Your task to perform on an android device: stop showing notifications on the lock screen Image 0: 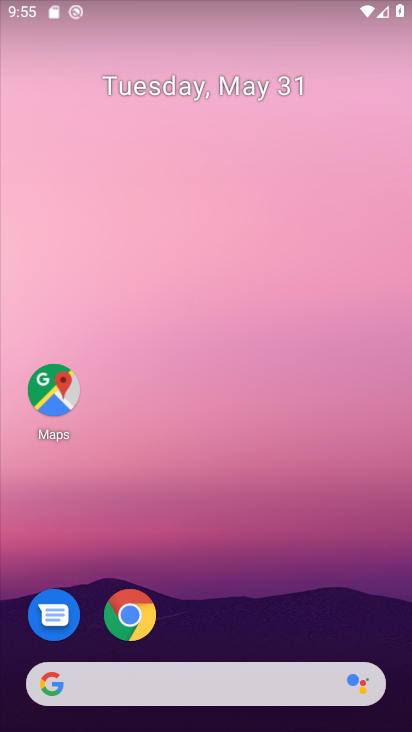
Step 0: drag from (265, 614) to (391, 34)
Your task to perform on an android device: stop showing notifications on the lock screen Image 1: 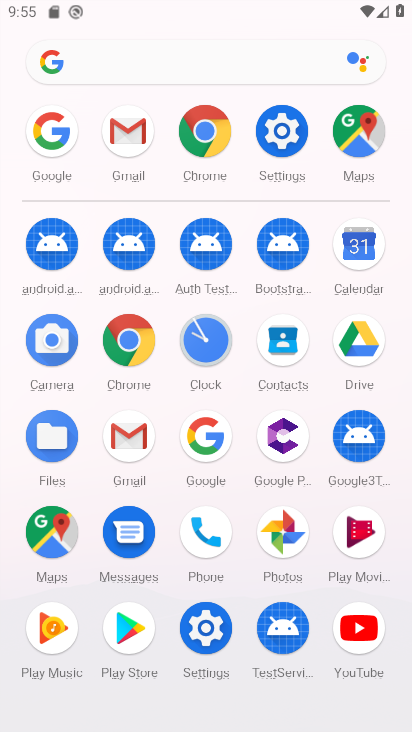
Step 1: click (273, 139)
Your task to perform on an android device: stop showing notifications on the lock screen Image 2: 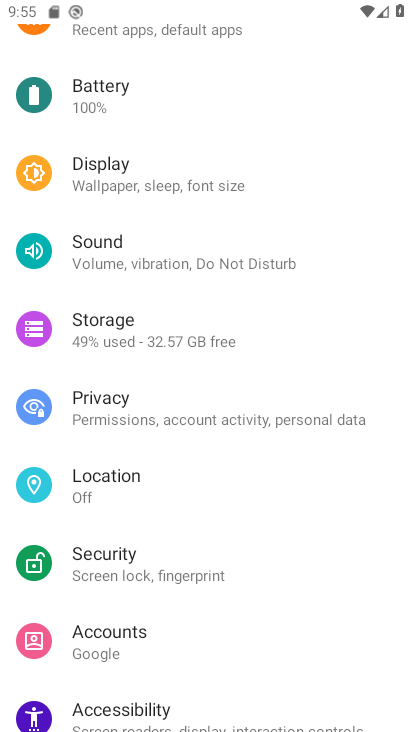
Step 2: drag from (171, 212) to (257, 614)
Your task to perform on an android device: stop showing notifications on the lock screen Image 3: 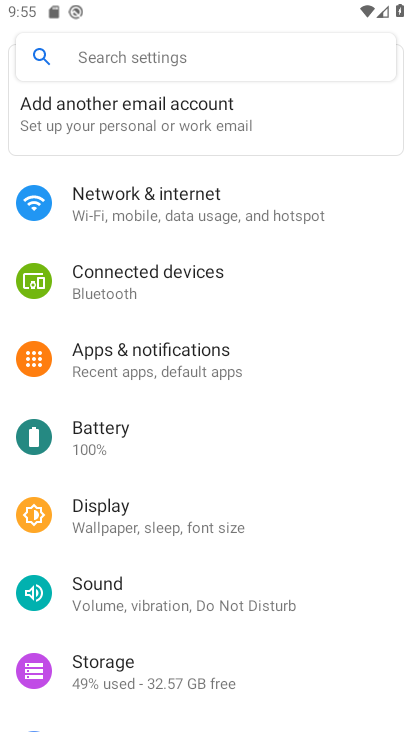
Step 3: click (172, 364)
Your task to perform on an android device: stop showing notifications on the lock screen Image 4: 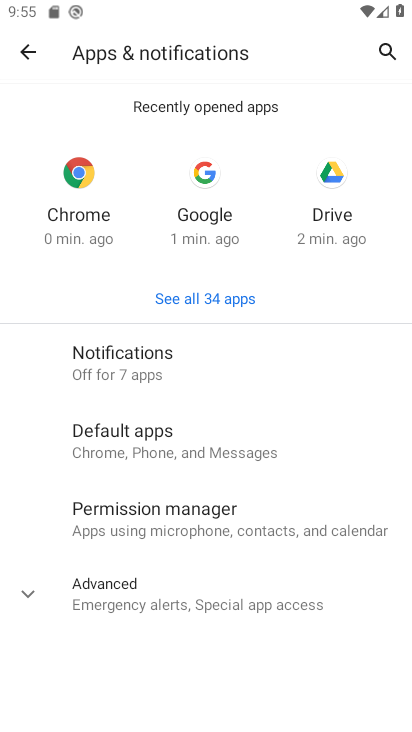
Step 4: click (113, 374)
Your task to perform on an android device: stop showing notifications on the lock screen Image 5: 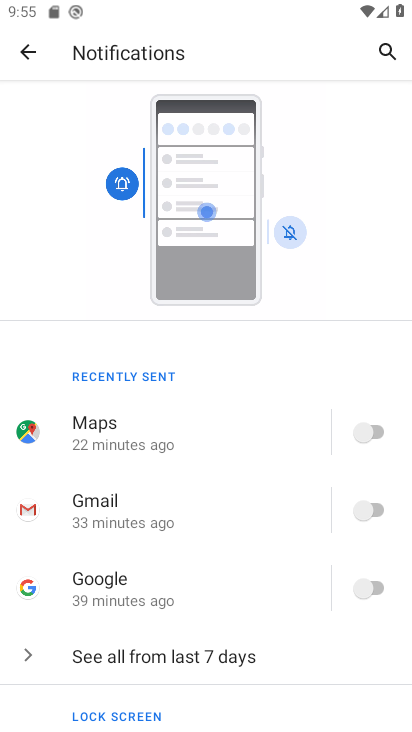
Step 5: drag from (157, 680) to (238, 190)
Your task to perform on an android device: stop showing notifications on the lock screen Image 6: 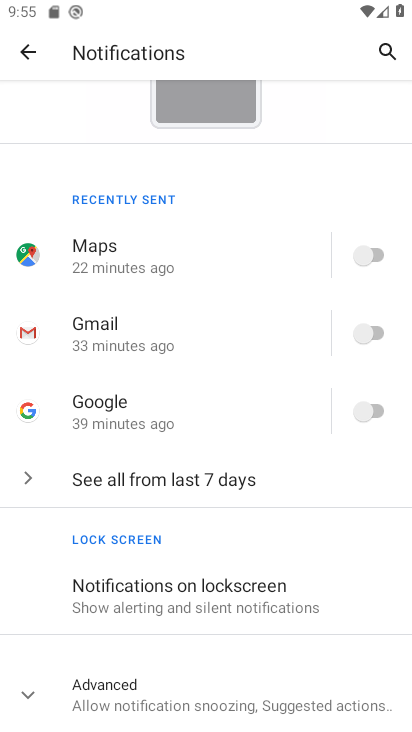
Step 6: click (192, 598)
Your task to perform on an android device: stop showing notifications on the lock screen Image 7: 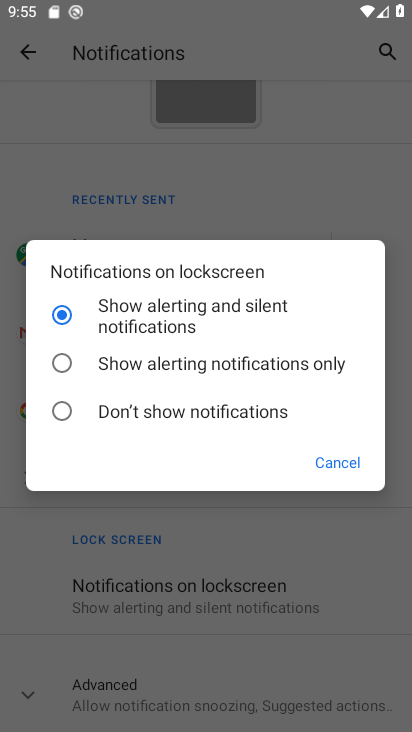
Step 7: click (193, 414)
Your task to perform on an android device: stop showing notifications on the lock screen Image 8: 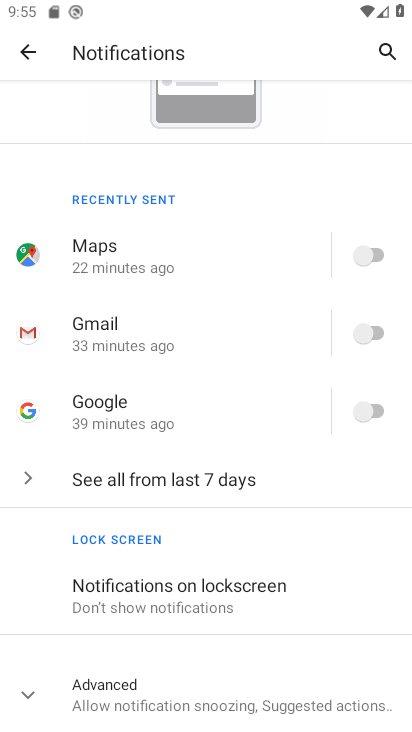
Step 8: task complete